Your task to perform on an android device: Search for sushi restaurants on Maps Image 0: 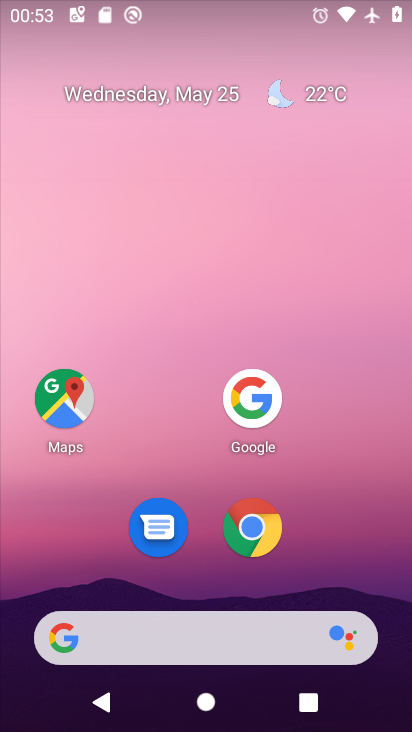
Step 0: press home button
Your task to perform on an android device: Search for sushi restaurants on Maps Image 1: 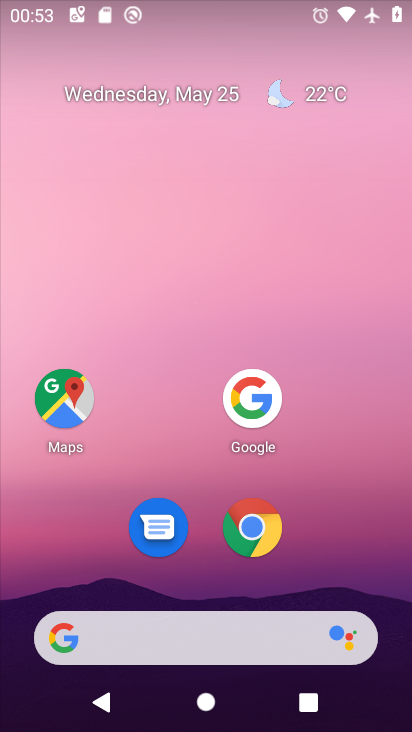
Step 1: click (75, 404)
Your task to perform on an android device: Search for sushi restaurants on Maps Image 2: 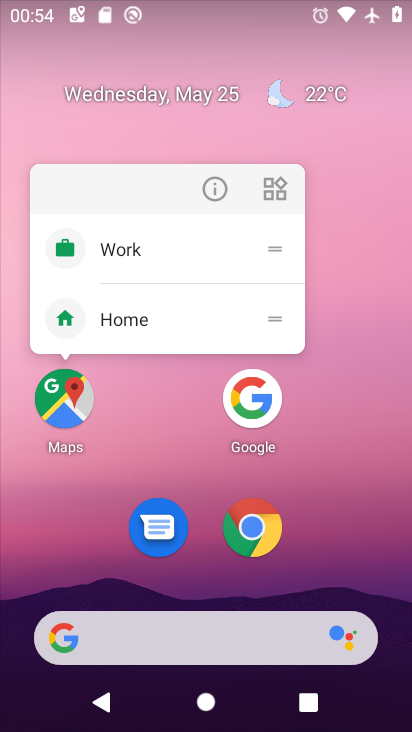
Step 2: click (75, 404)
Your task to perform on an android device: Search for sushi restaurants on Maps Image 3: 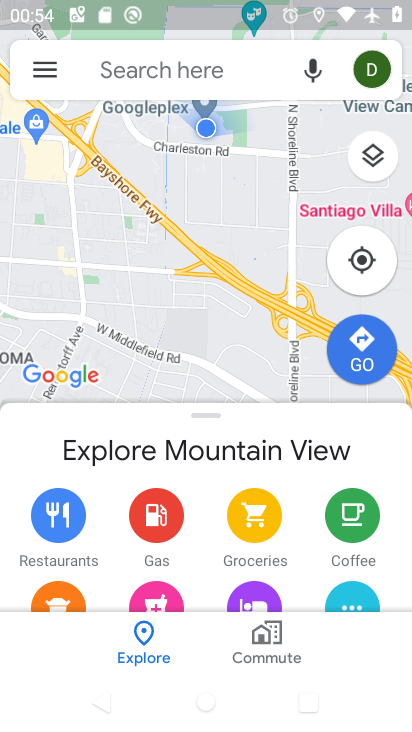
Step 3: click (173, 68)
Your task to perform on an android device: Search for sushi restaurants on Maps Image 4: 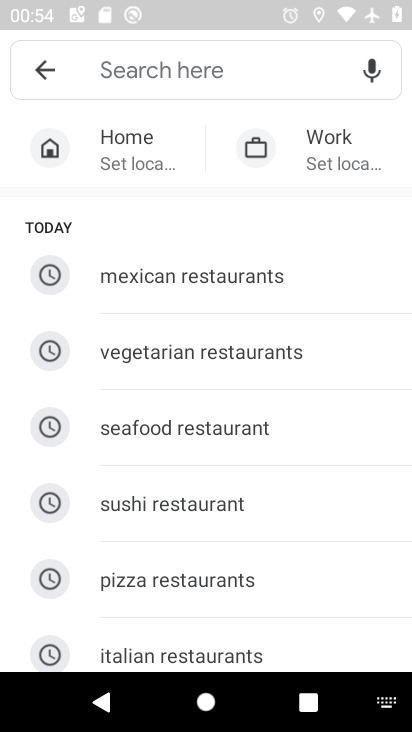
Step 4: click (205, 518)
Your task to perform on an android device: Search for sushi restaurants on Maps Image 5: 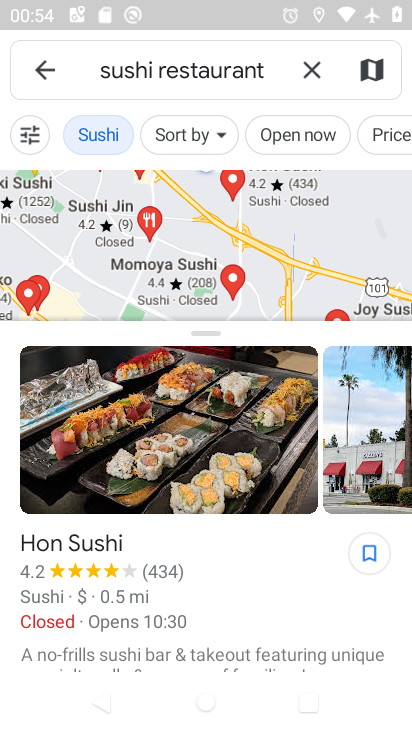
Step 5: task complete